Your task to perform on an android device: open the mobile data screen to see how much data has been used Image 0: 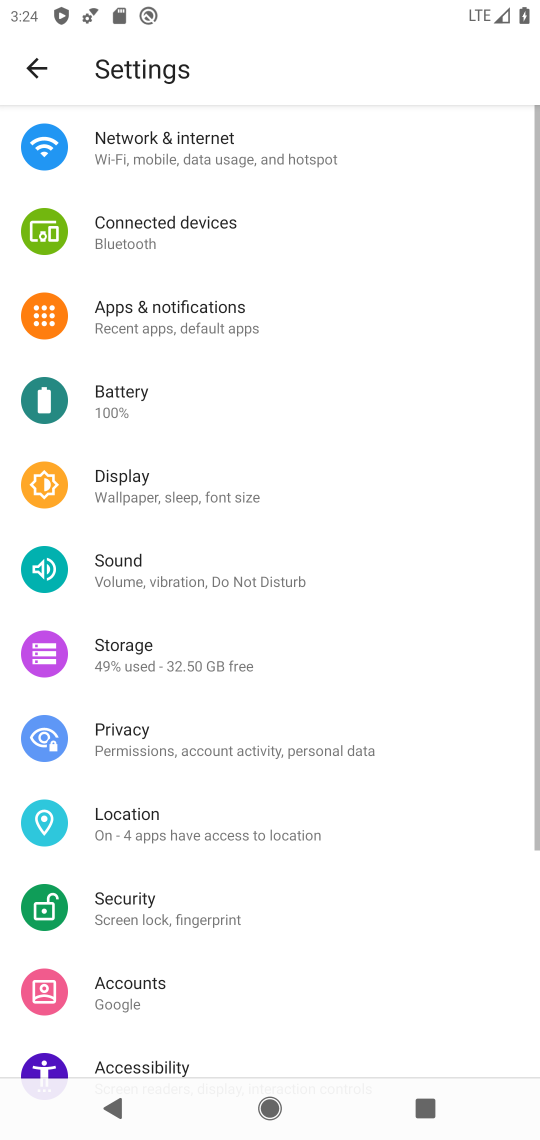
Step 0: press home button
Your task to perform on an android device: open the mobile data screen to see how much data has been used Image 1: 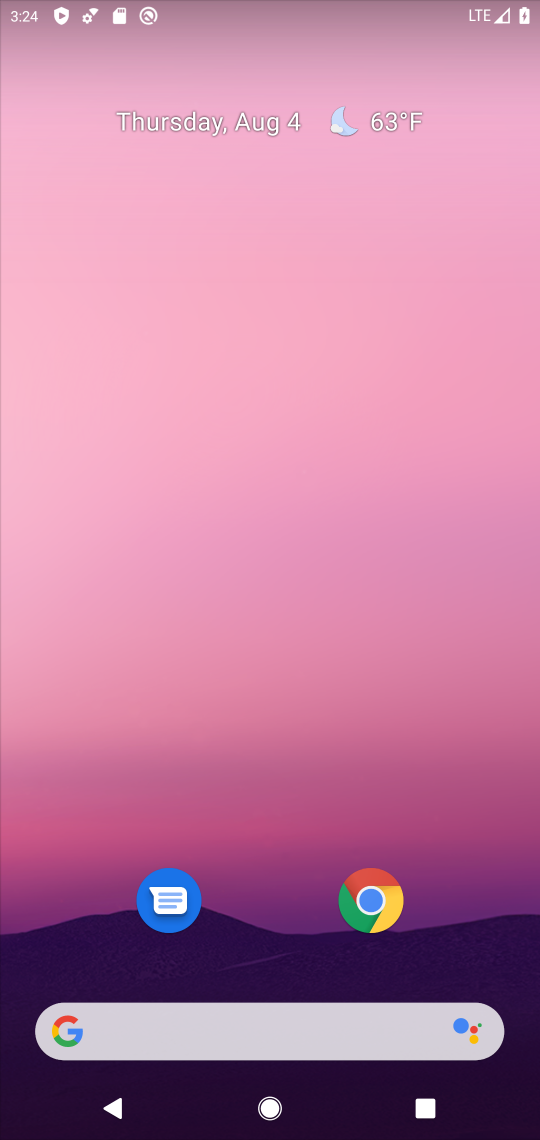
Step 1: drag from (450, 948) to (254, 304)
Your task to perform on an android device: open the mobile data screen to see how much data has been used Image 2: 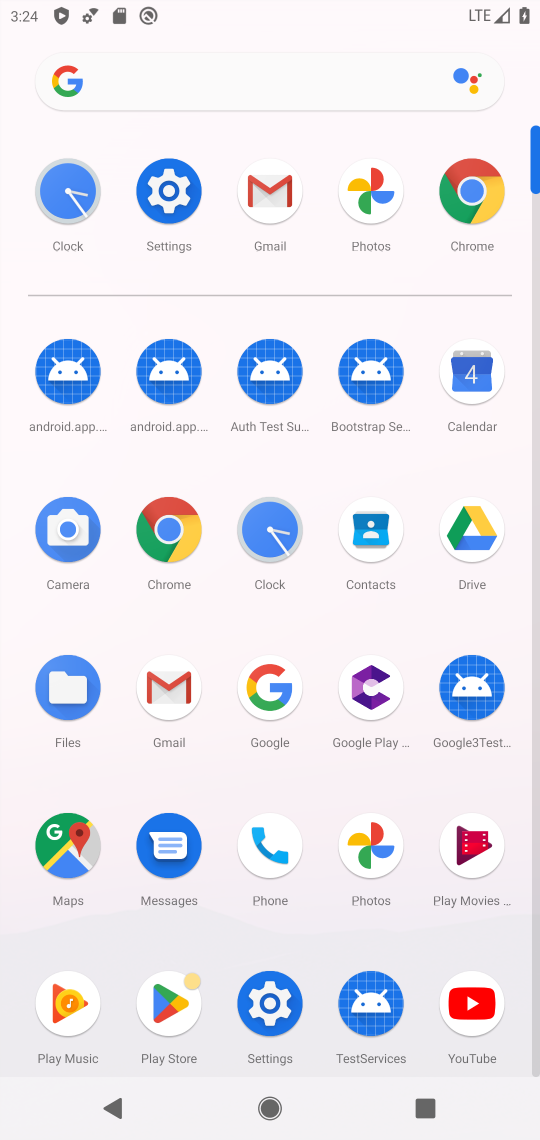
Step 2: click (175, 196)
Your task to perform on an android device: open the mobile data screen to see how much data has been used Image 3: 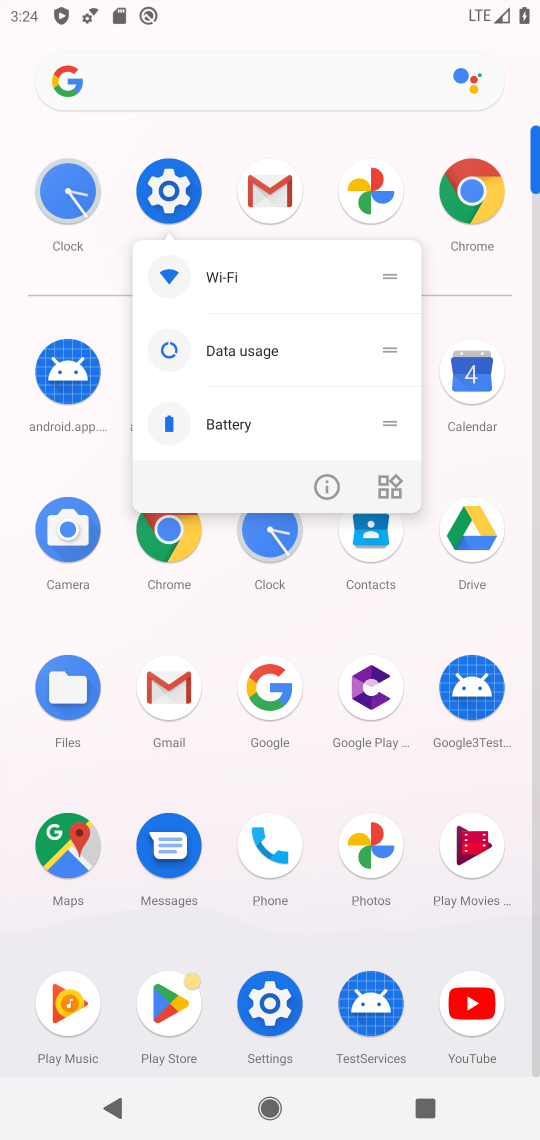
Step 3: click (175, 196)
Your task to perform on an android device: open the mobile data screen to see how much data has been used Image 4: 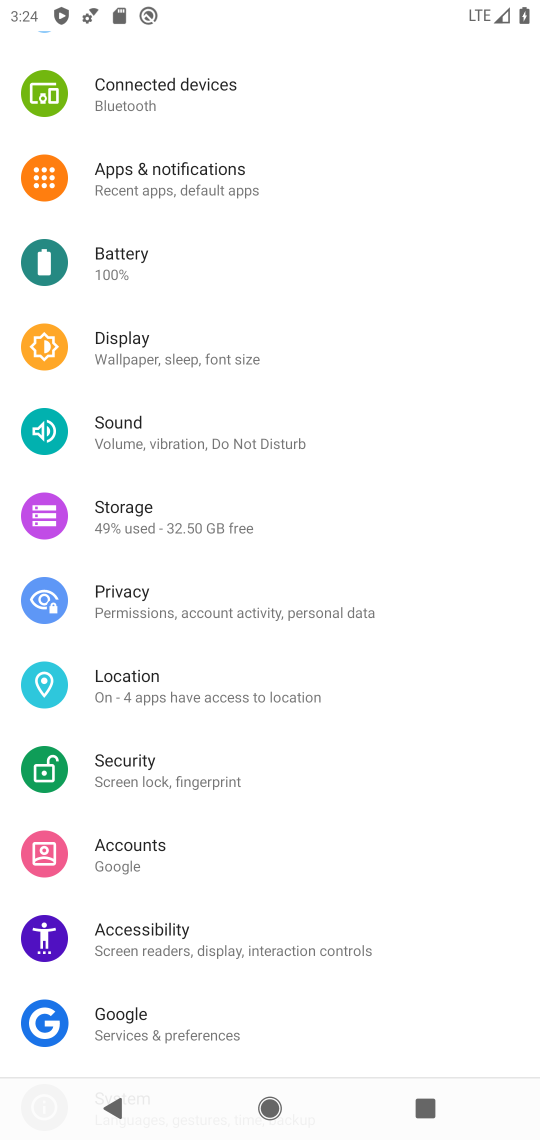
Step 4: drag from (175, 196) to (229, 1036)
Your task to perform on an android device: open the mobile data screen to see how much data has been used Image 5: 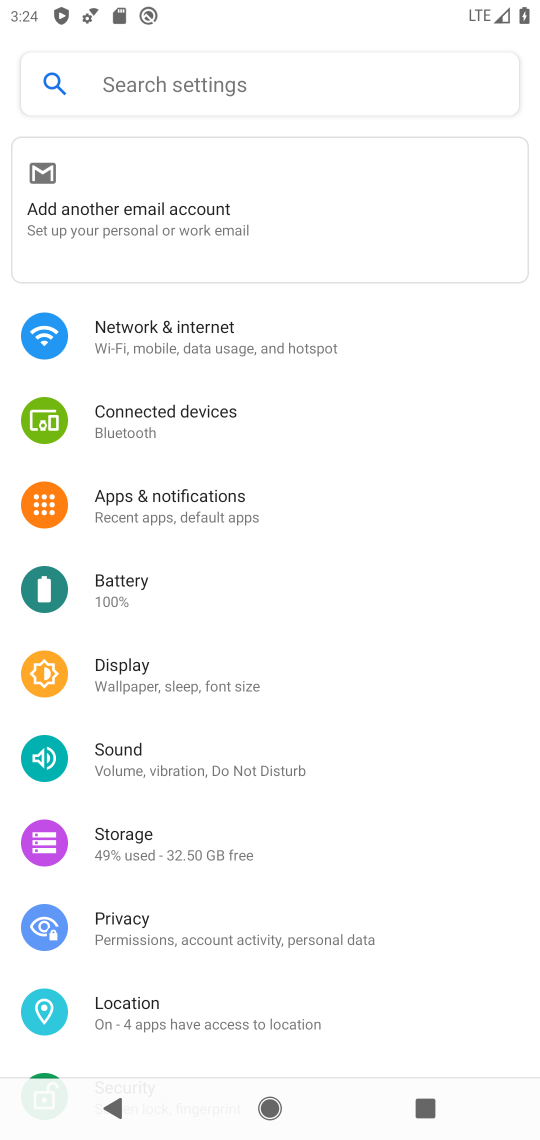
Step 5: click (304, 328)
Your task to perform on an android device: open the mobile data screen to see how much data has been used Image 6: 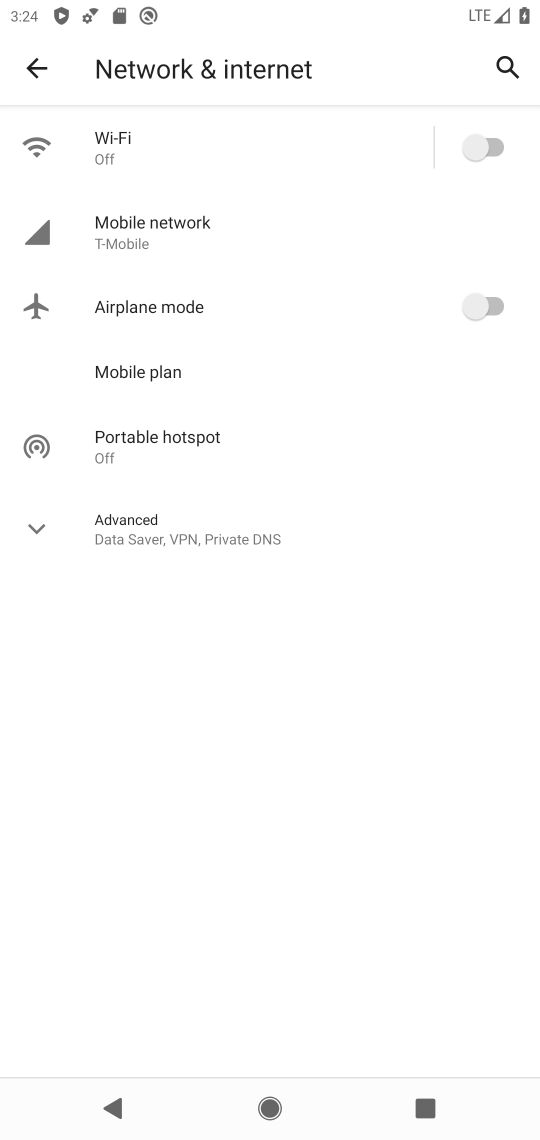
Step 6: click (233, 248)
Your task to perform on an android device: open the mobile data screen to see how much data has been used Image 7: 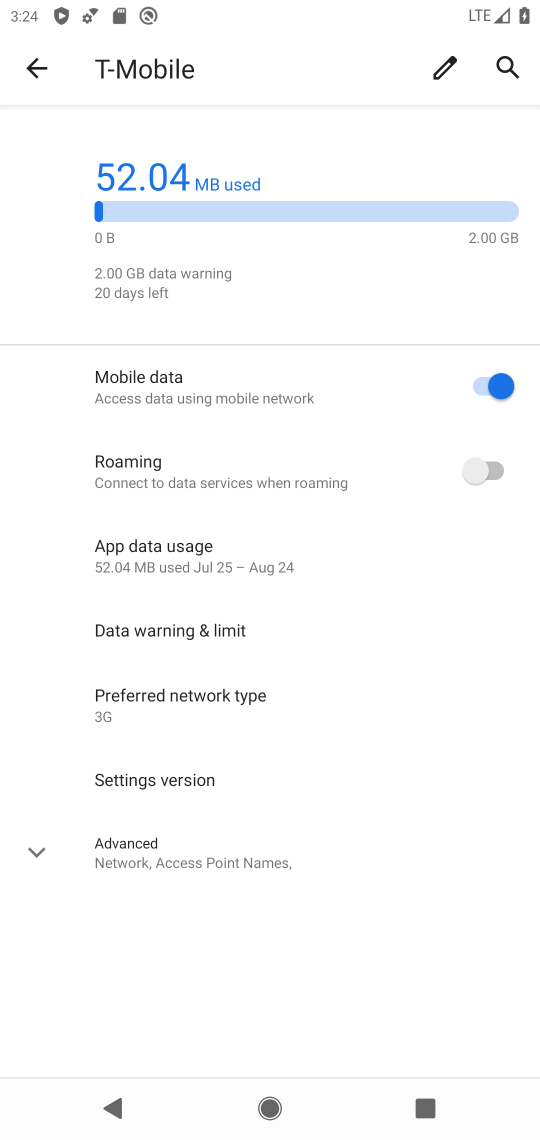
Step 7: task complete